Your task to perform on an android device: turn notification dots off Image 0: 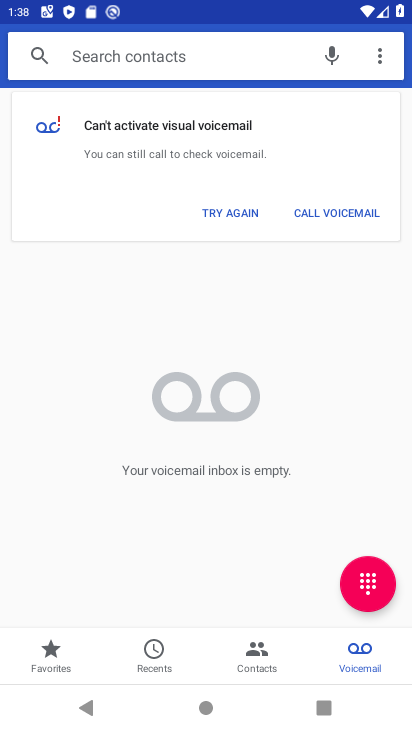
Step 0: press home button
Your task to perform on an android device: turn notification dots off Image 1: 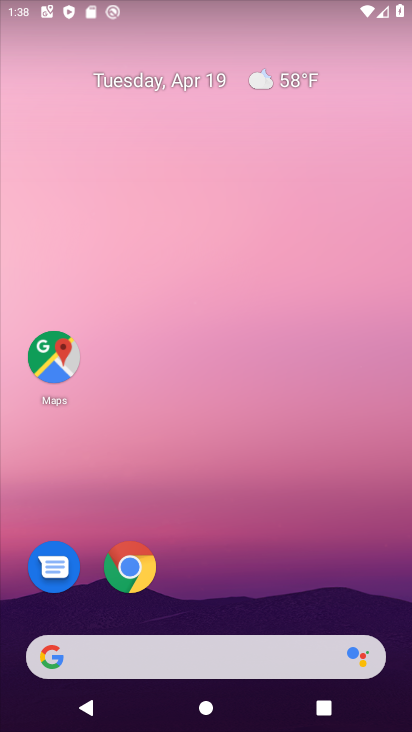
Step 1: drag from (253, 586) to (280, 100)
Your task to perform on an android device: turn notification dots off Image 2: 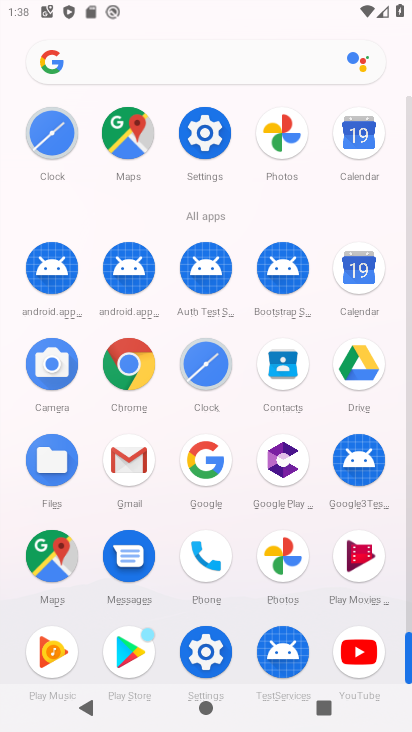
Step 2: click (221, 127)
Your task to perform on an android device: turn notification dots off Image 3: 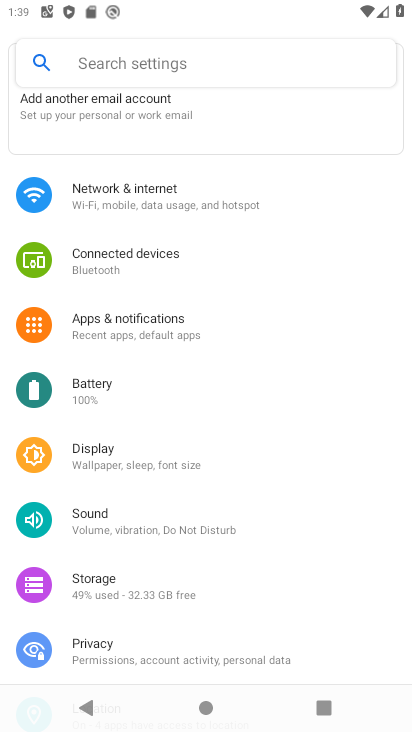
Step 3: click (143, 343)
Your task to perform on an android device: turn notification dots off Image 4: 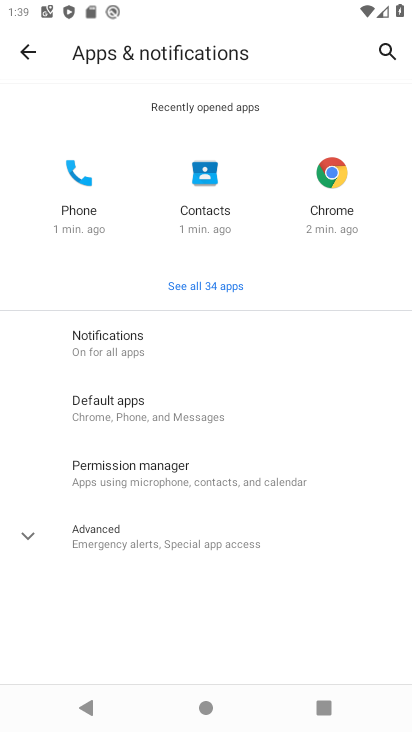
Step 4: click (111, 326)
Your task to perform on an android device: turn notification dots off Image 5: 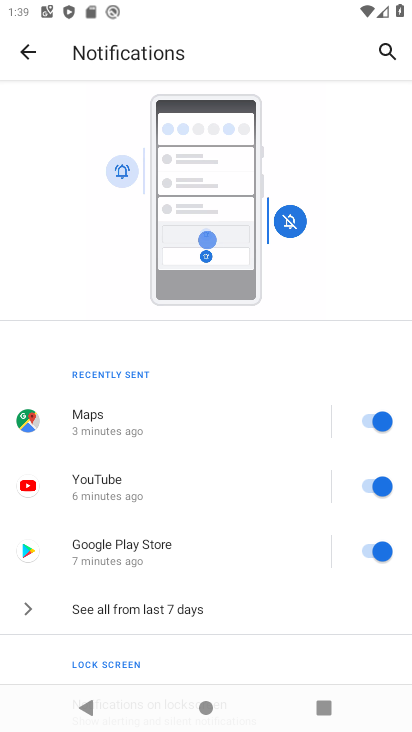
Step 5: drag from (189, 593) to (220, 302)
Your task to perform on an android device: turn notification dots off Image 6: 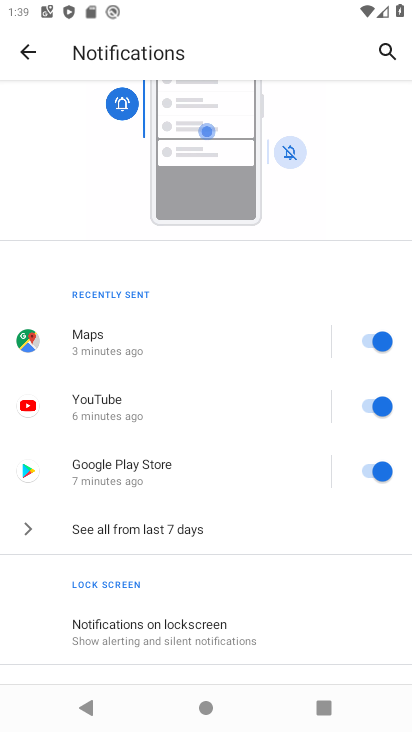
Step 6: drag from (289, 581) to (281, 275)
Your task to perform on an android device: turn notification dots off Image 7: 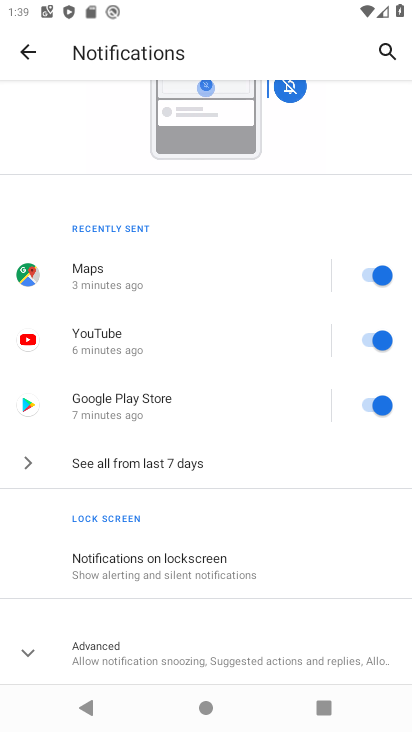
Step 7: click (29, 643)
Your task to perform on an android device: turn notification dots off Image 8: 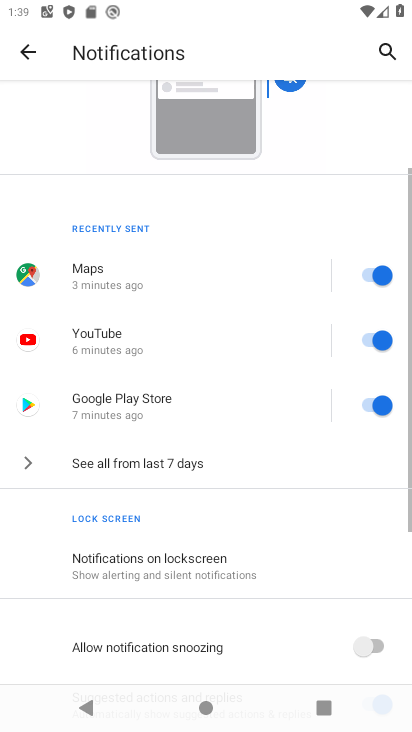
Step 8: drag from (231, 651) to (294, 266)
Your task to perform on an android device: turn notification dots off Image 9: 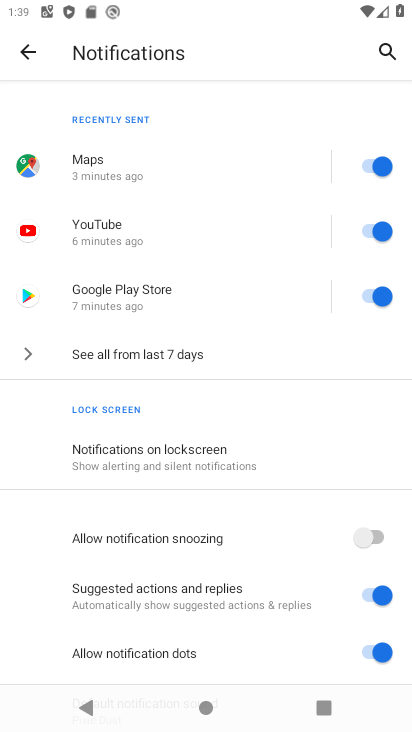
Step 9: click (389, 659)
Your task to perform on an android device: turn notification dots off Image 10: 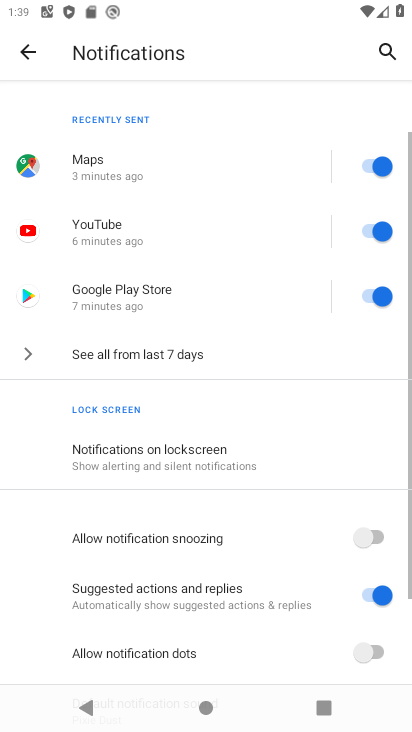
Step 10: task complete